Your task to perform on an android device: Check the weather Image 0: 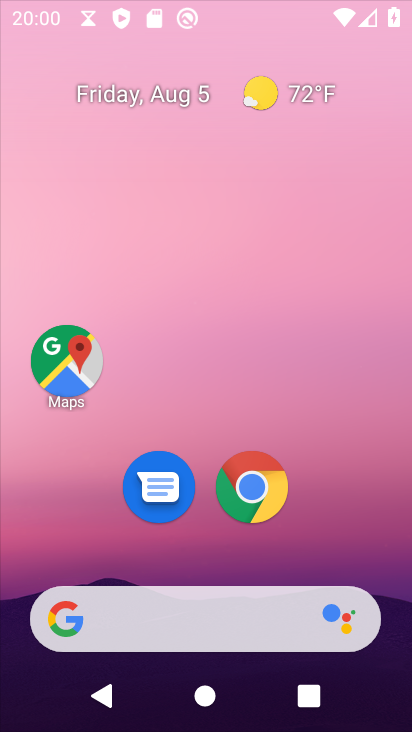
Step 0: press home button
Your task to perform on an android device: Check the weather Image 1: 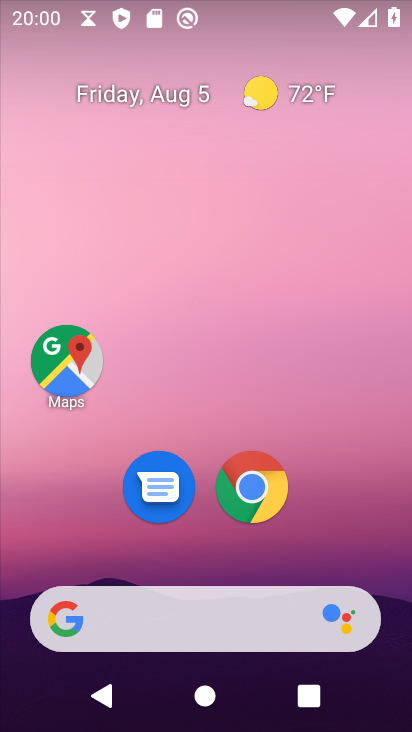
Step 1: click (143, 610)
Your task to perform on an android device: Check the weather Image 2: 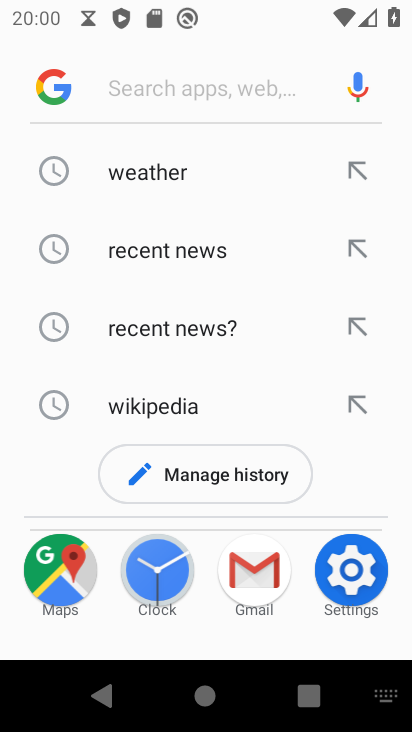
Step 2: click (163, 168)
Your task to perform on an android device: Check the weather Image 3: 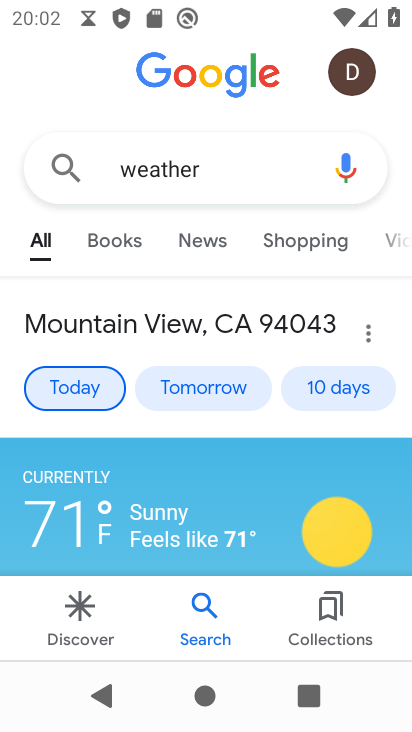
Step 3: task complete